Your task to perform on an android device: add a contact in the contacts app Image 0: 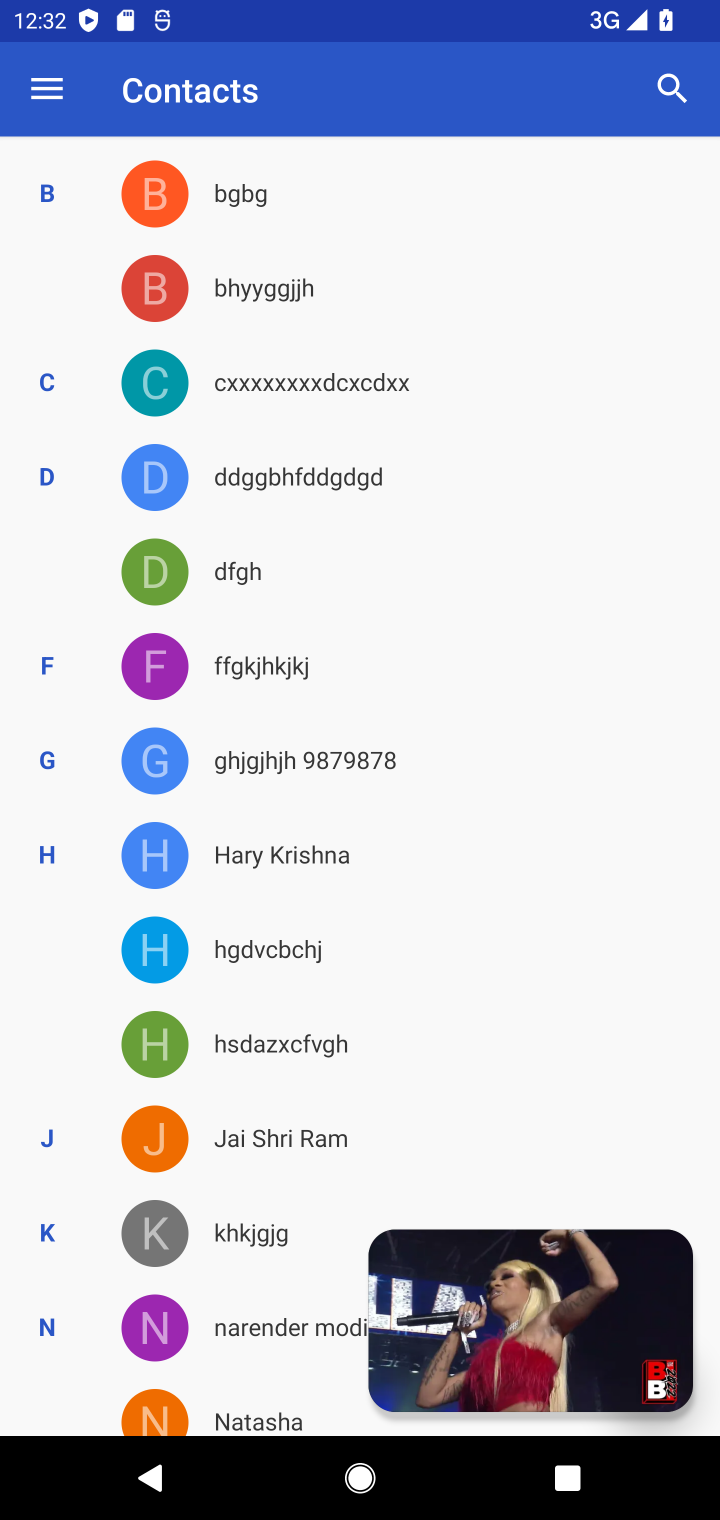
Step 0: press home button
Your task to perform on an android device: add a contact in the contacts app Image 1: 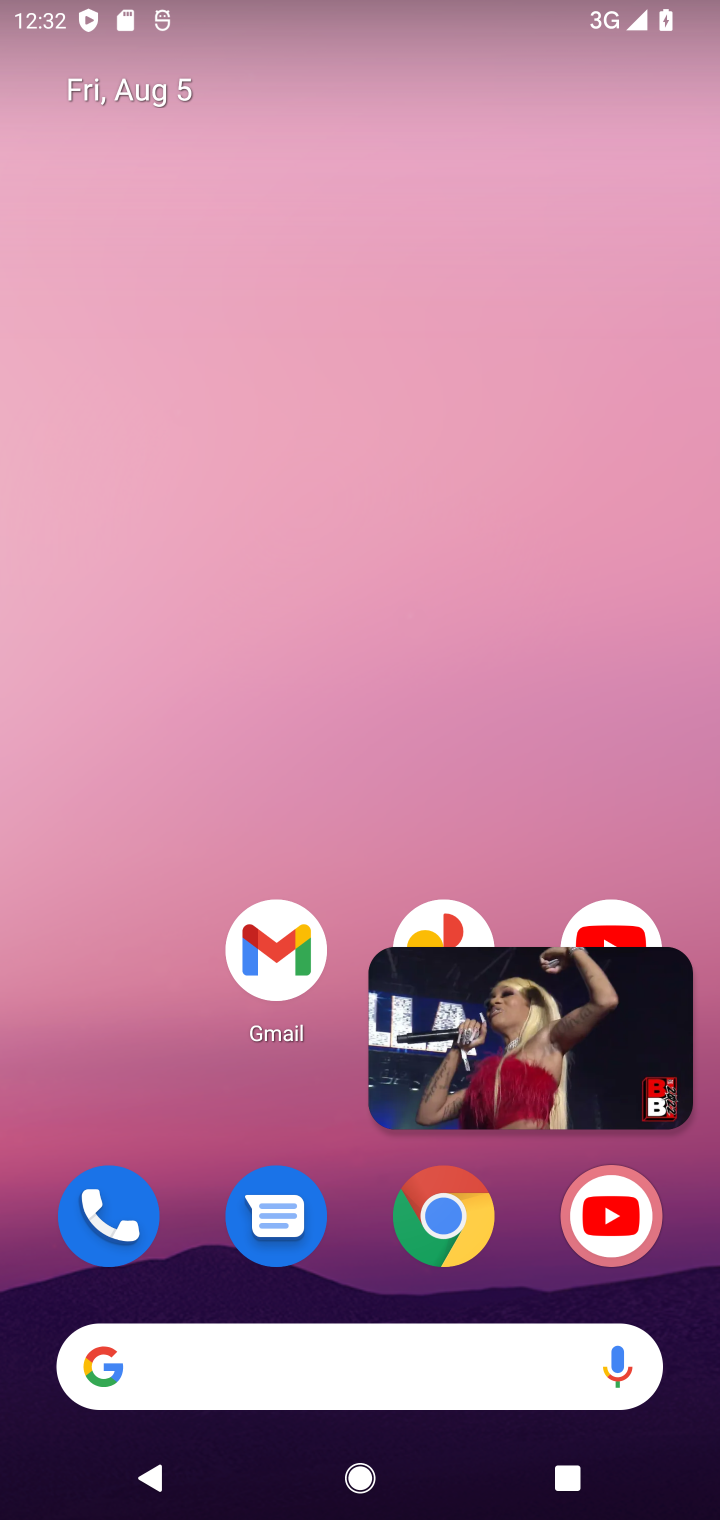
Step 1: drag from (503, 1345) to (475, 124)
Your task to perform on an android device: add a contact in the contacts app Image 2: 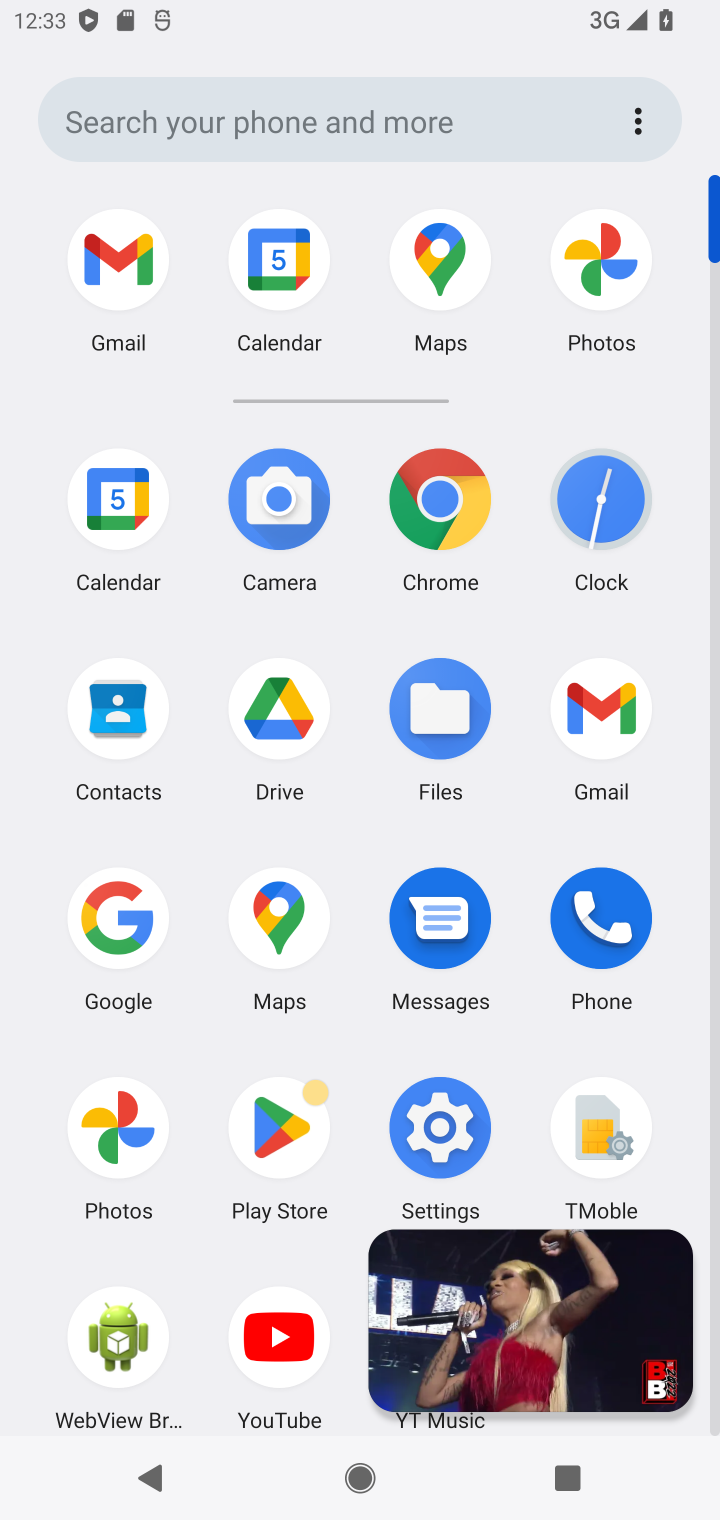
Step 2: click (142, 727)
Your task to perform on an android device: add a contact in the contacts app Image 3: 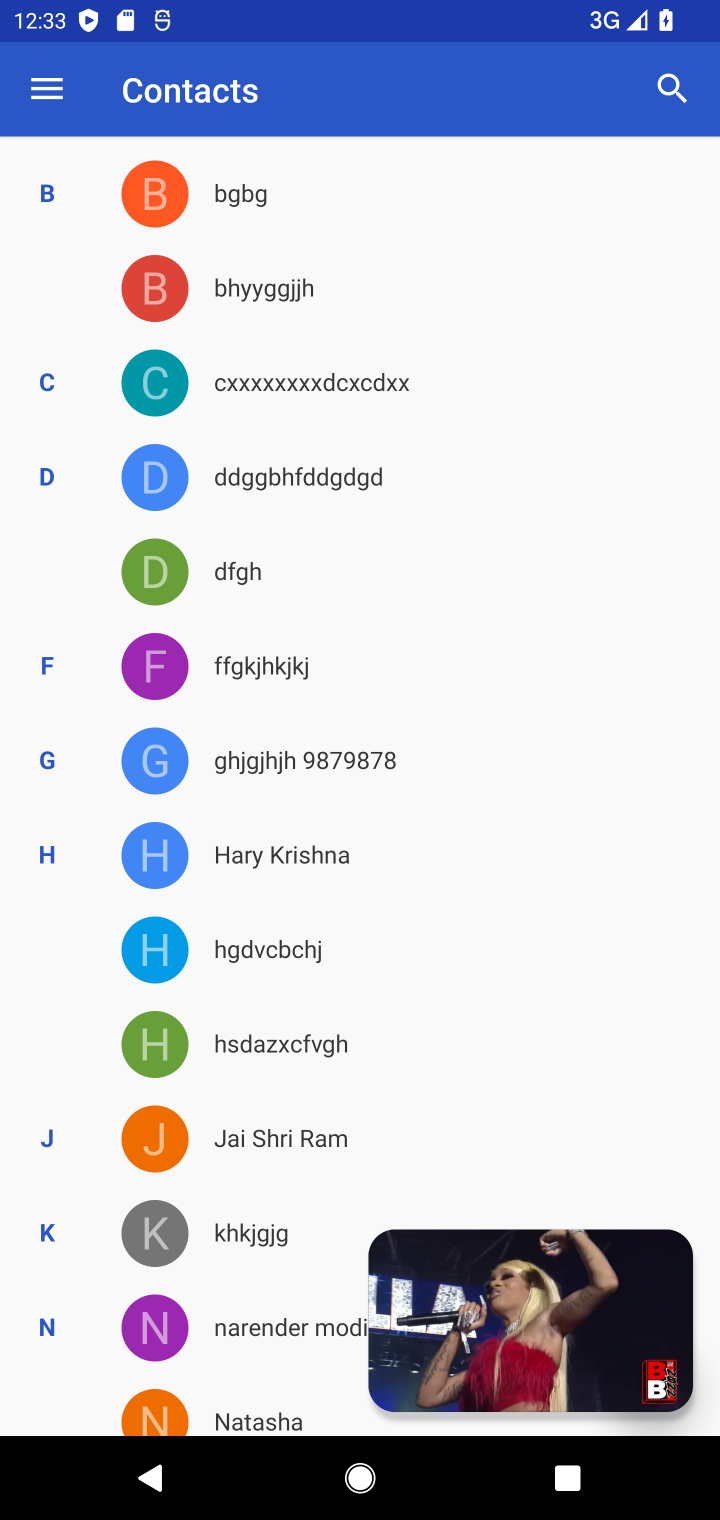
Step 3: click (640, 1269)
Your task to perform on an android device: add a contact in the contacts app Image 4: 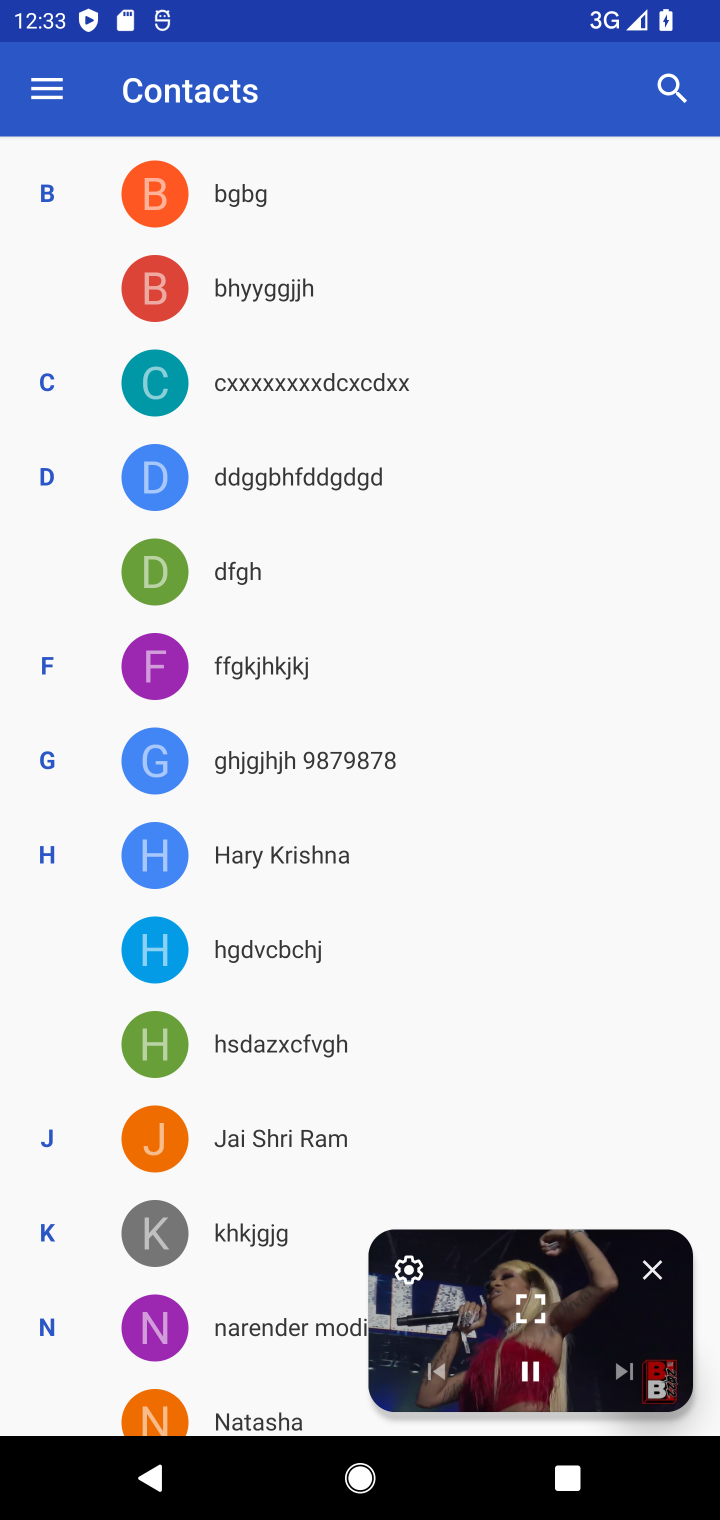
Step 4: click (654, 1264)
Your task to perform on an android device: add a contact in the contacts app Image 5: 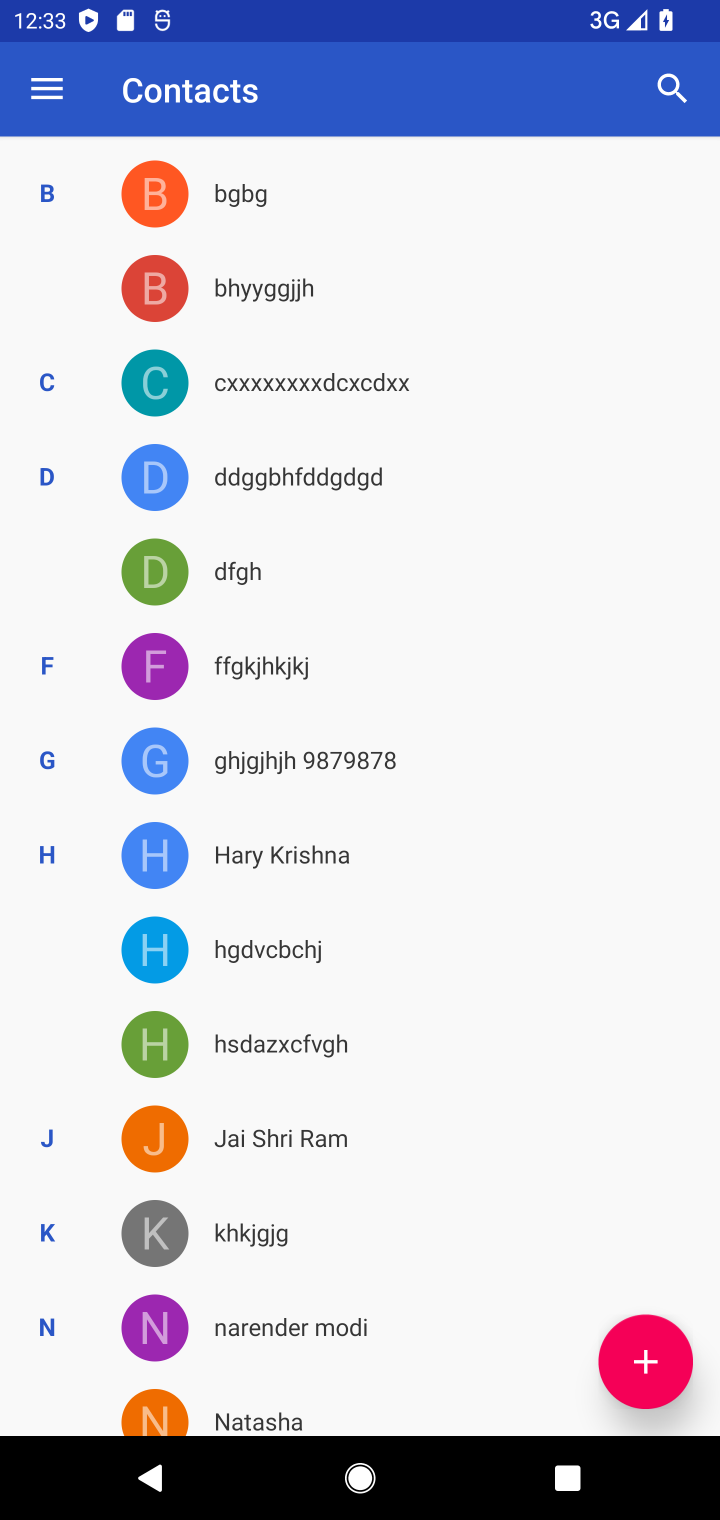
Step 5: click (654, 1346)
Your task to perform on an android device: add a contact in the contacts app Image 6: 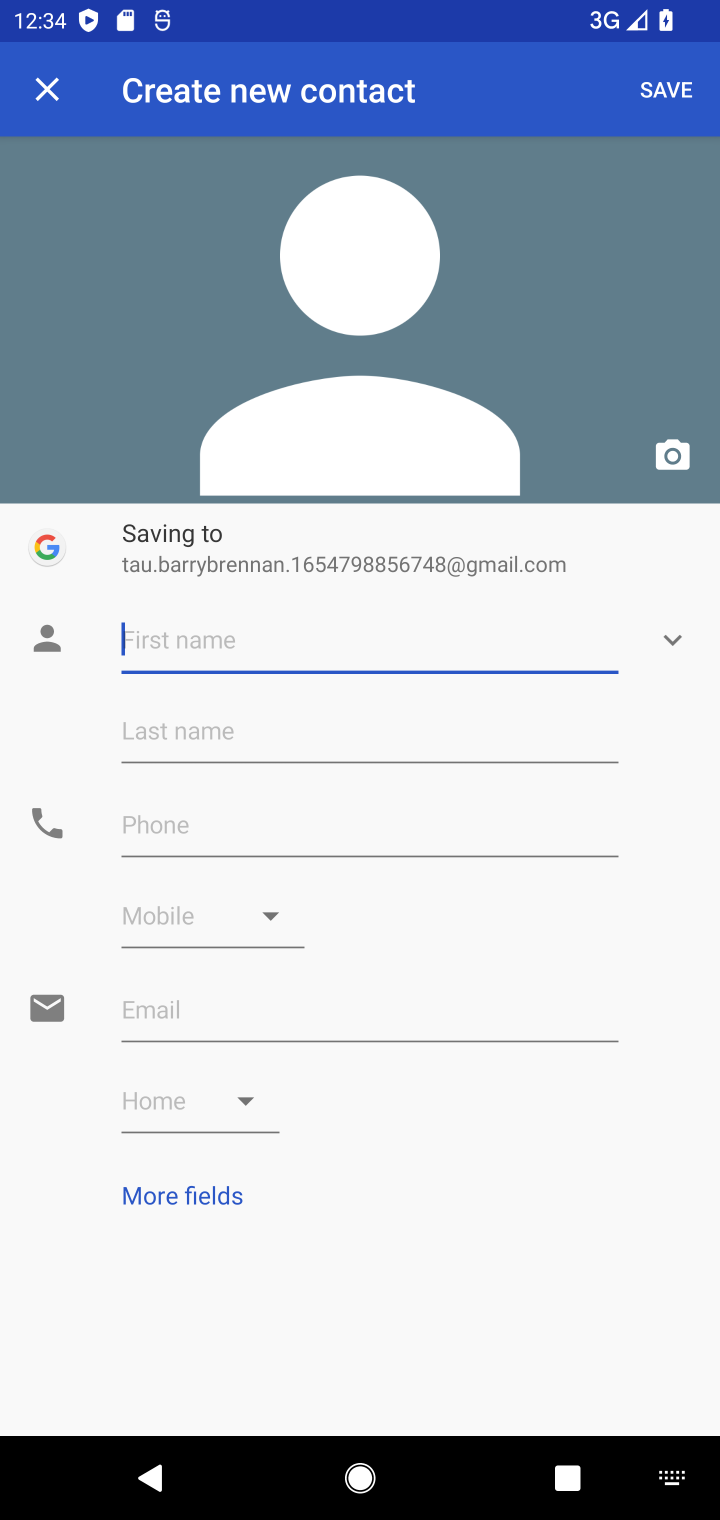
Step 6: type "jhdkjhkjs"
Your task to perform on an android device: add a contact in the contacts app Image 7: 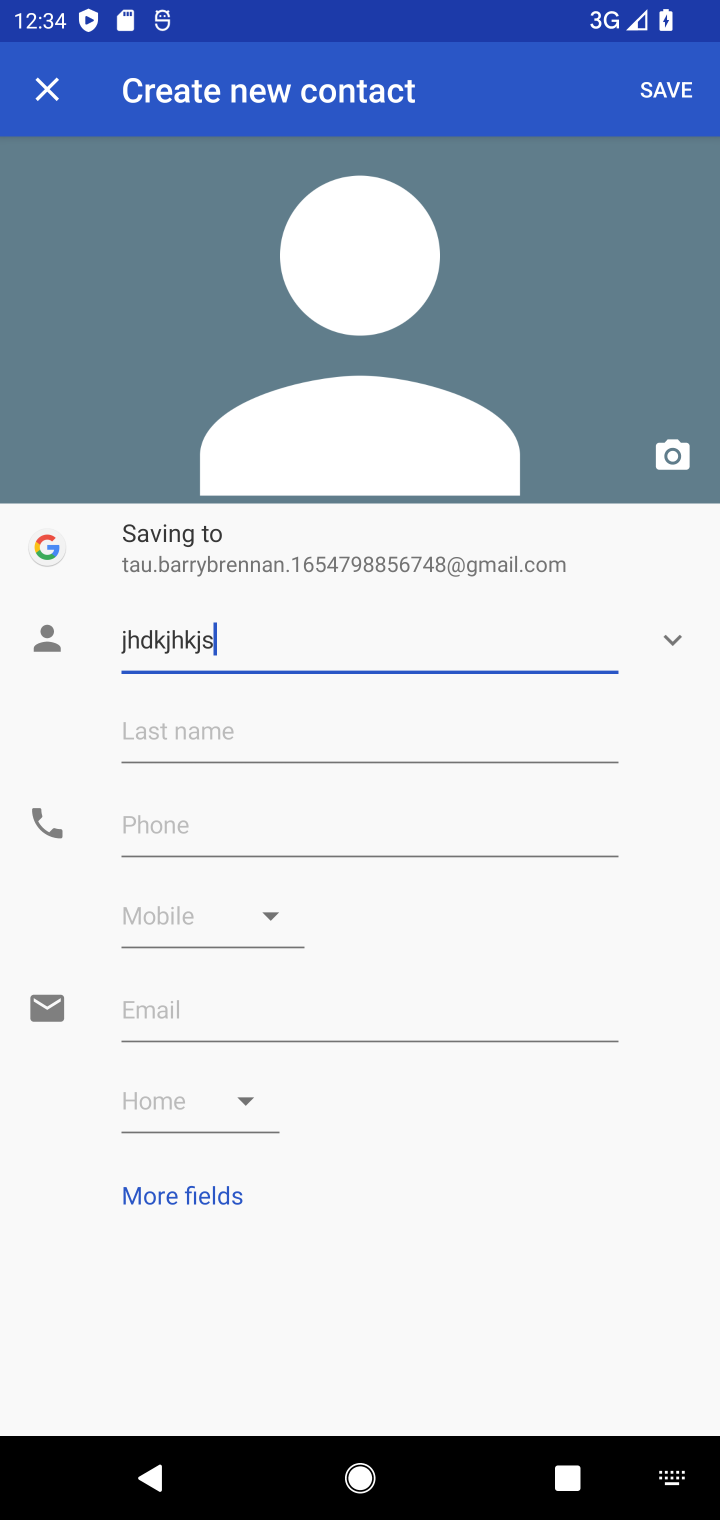
Step 7: click (350, 828)
Your task to perform on an android device: add a contact in the contacts app Image 8: 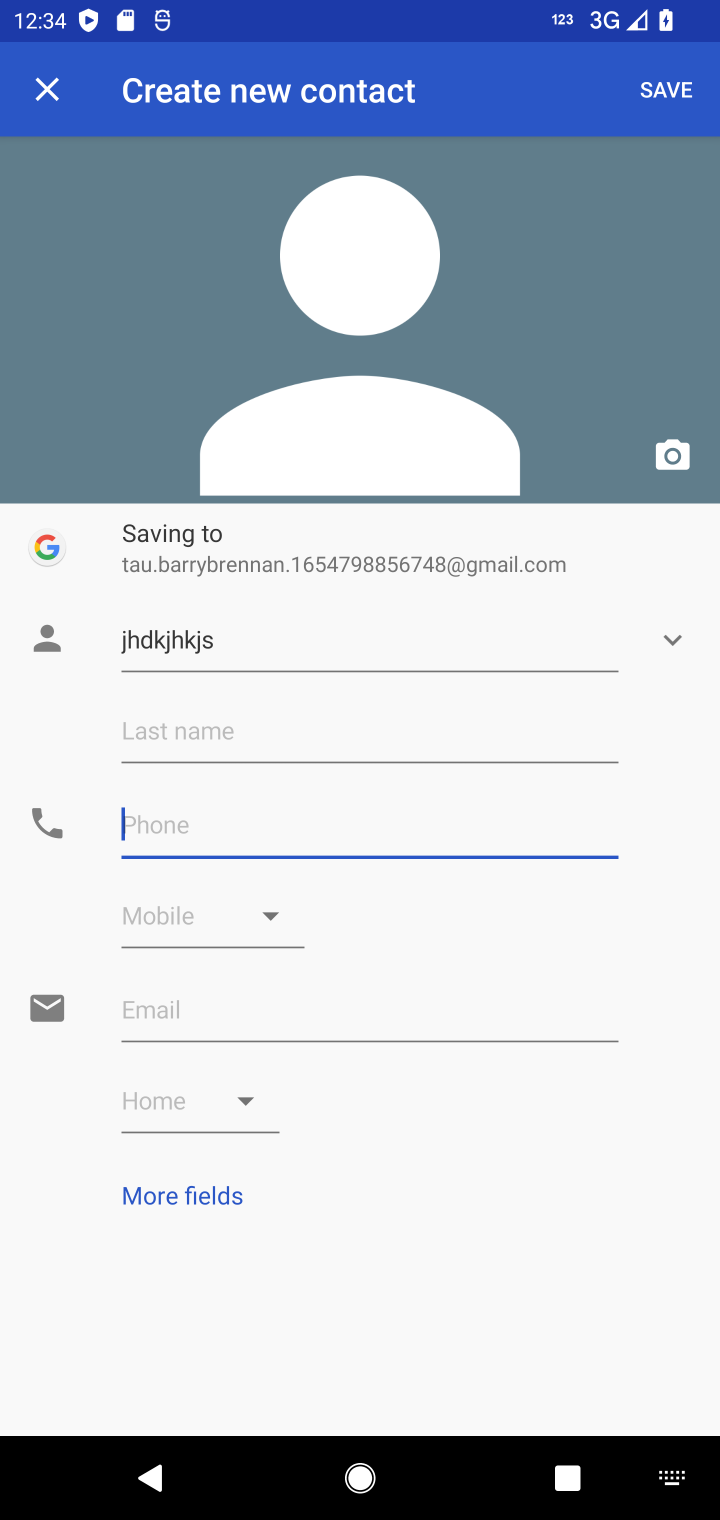
Step 8: type "90876565756"
Your task to perform on an android device: add a contact in the contacts app Image 9: 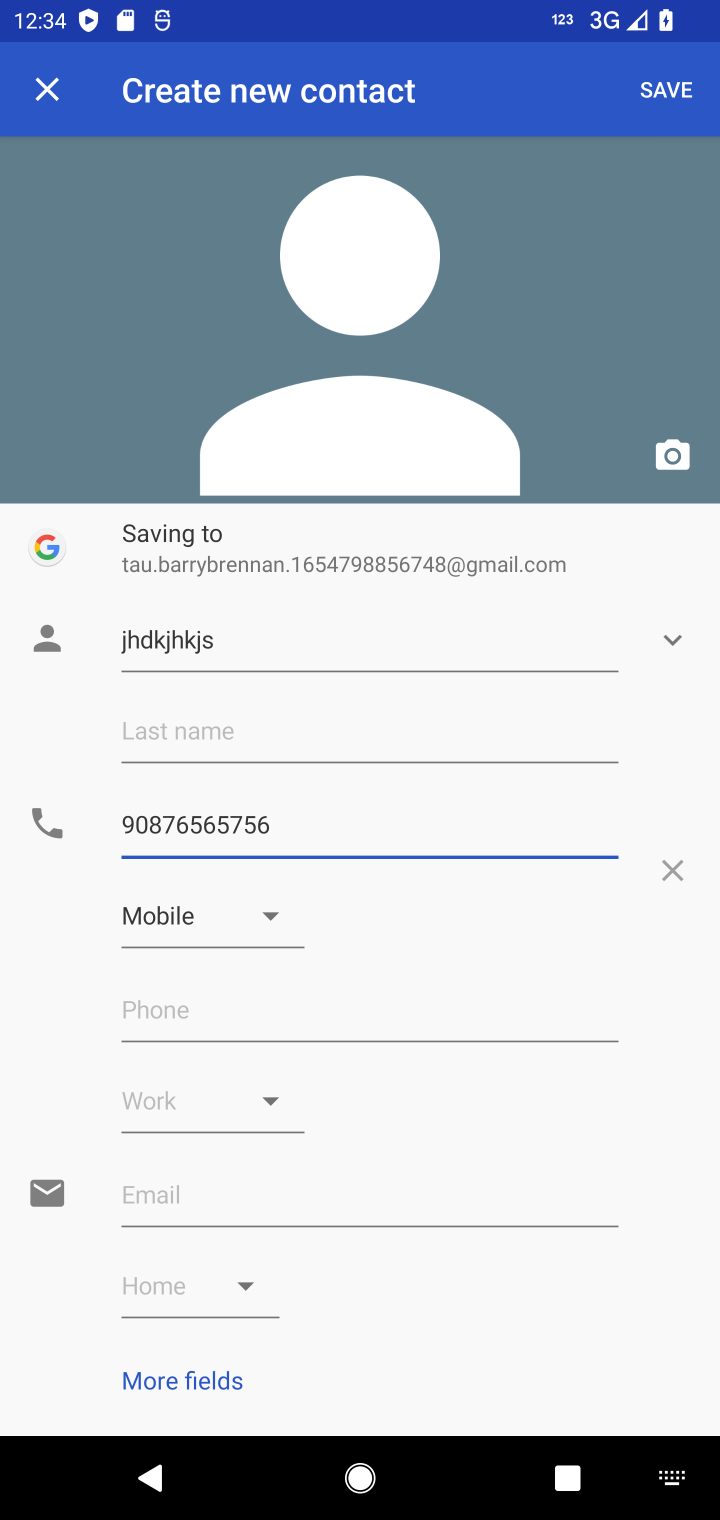
Step 9: click (681, 79)
Your task to perform on an android device: add a contact in the contacts app Image 10: 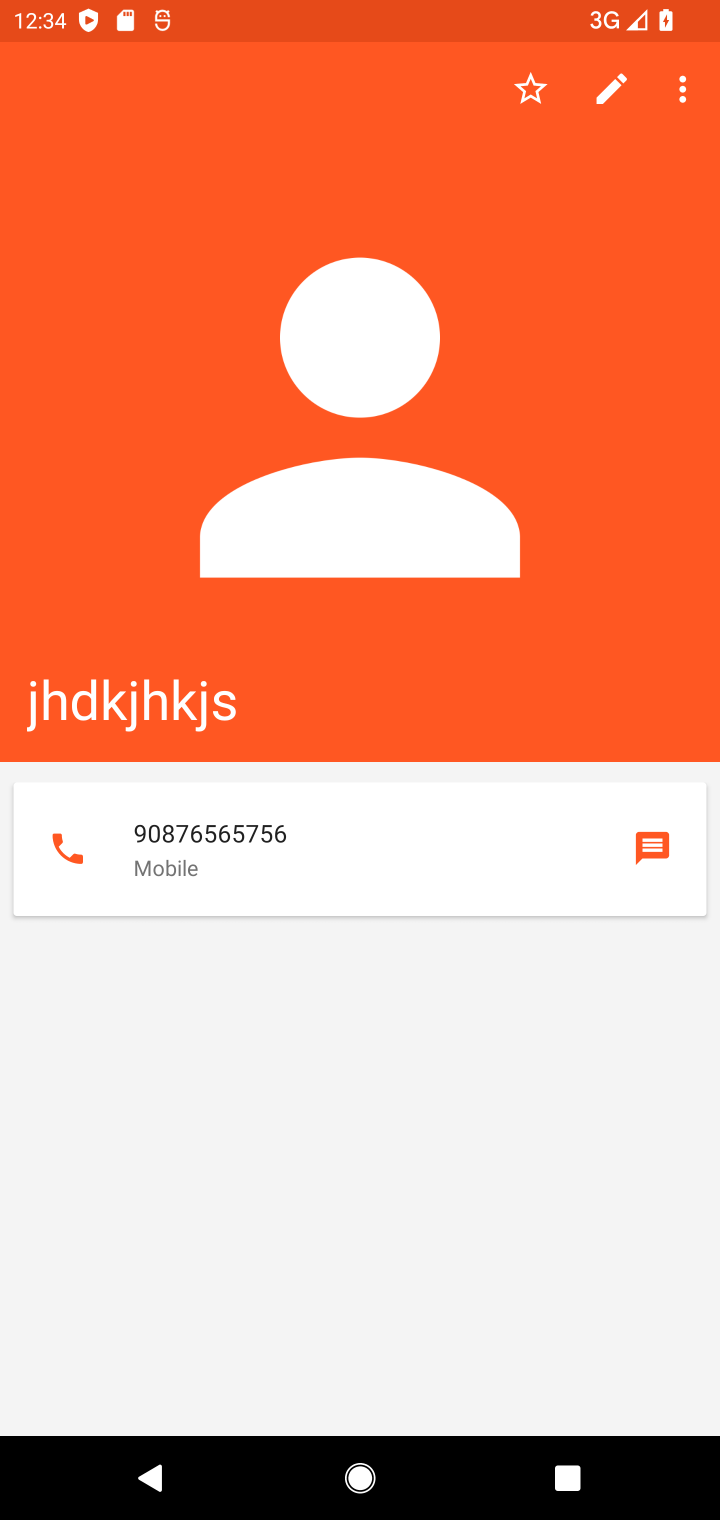
Step 10: task complete